Your task to perform on an android device: Open wifi settings Image 0: 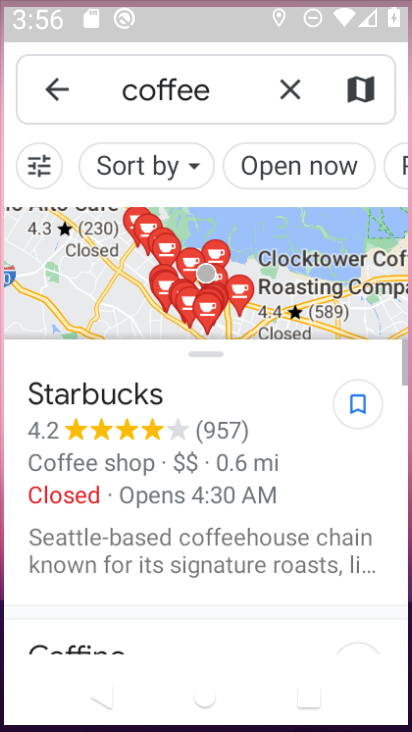
Step 0: drag from (205, 521) to (242, 4)
Your task to perform on an android device: Open wifi settings Image 1: 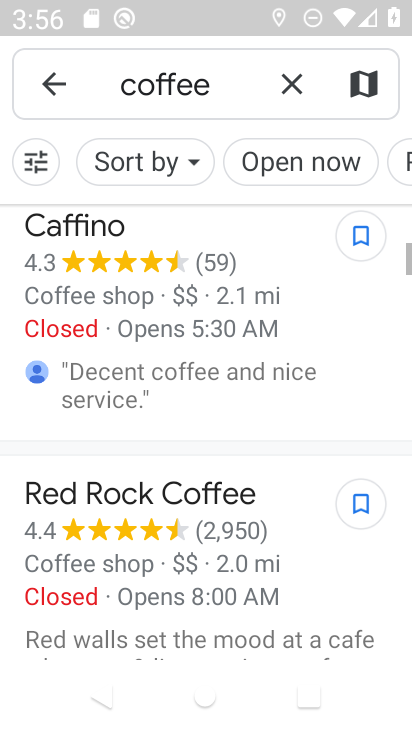
Step 1: press back button
Your task to perform on an android device: Open wifi settings Image 2: 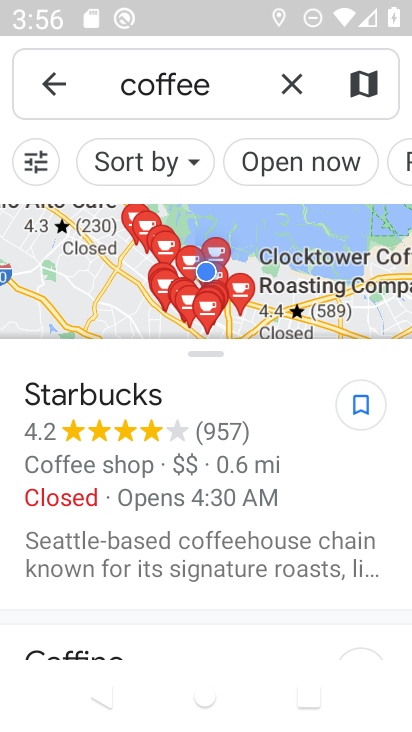
Step 2: press back button
Your task to perform on an android device: Open wifi settings Image 3: 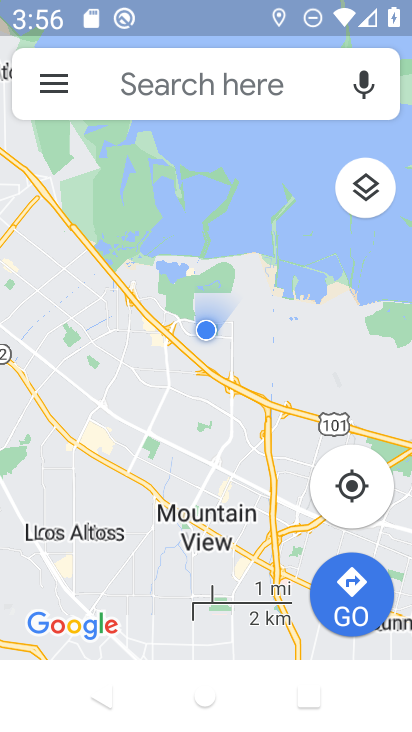
Step 3: press back button
Your task to perform on an android device: Open wifi settings Image 4: 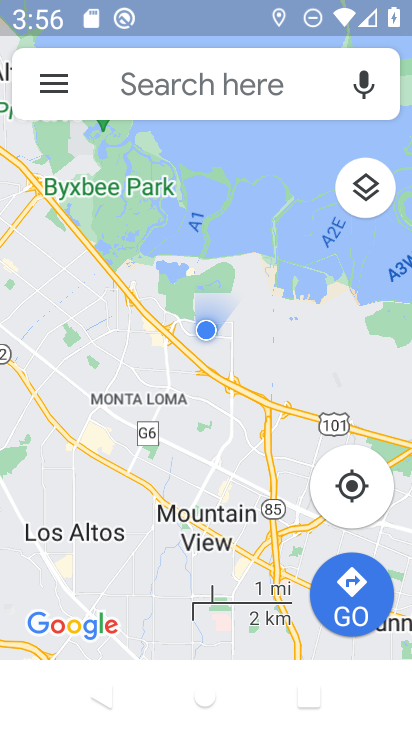
Step 4: press back button
Your task to perform on an android device: Open wifi settings Image 5: 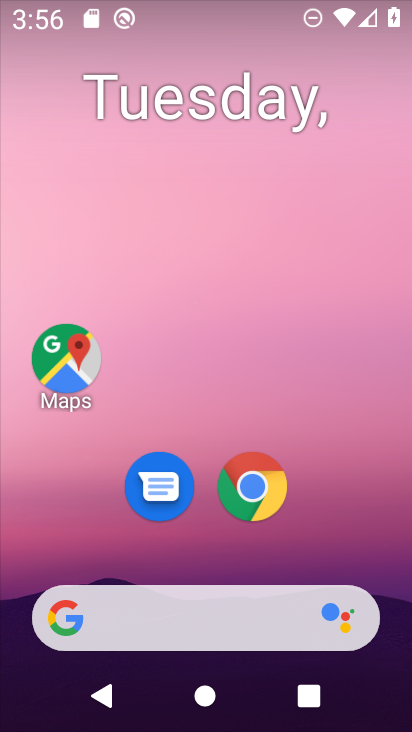
Step 5: press back button
Your task to perform on an android device: Open wifi settings Image 6: 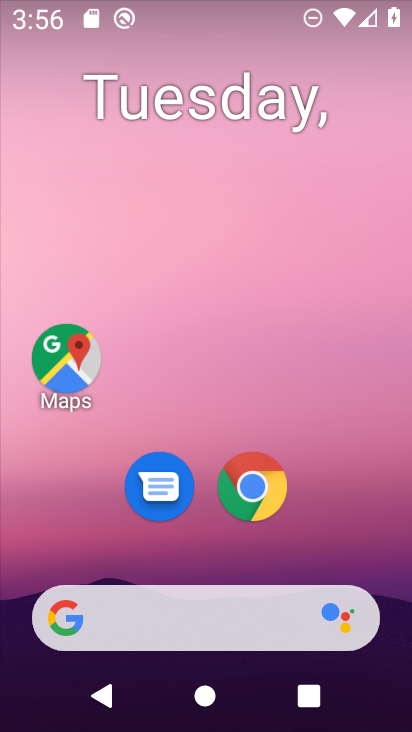
Step 6: drag from (91, 14) to (157, 582)
Your task to perform on an android device: Open wifi settings Image 7: 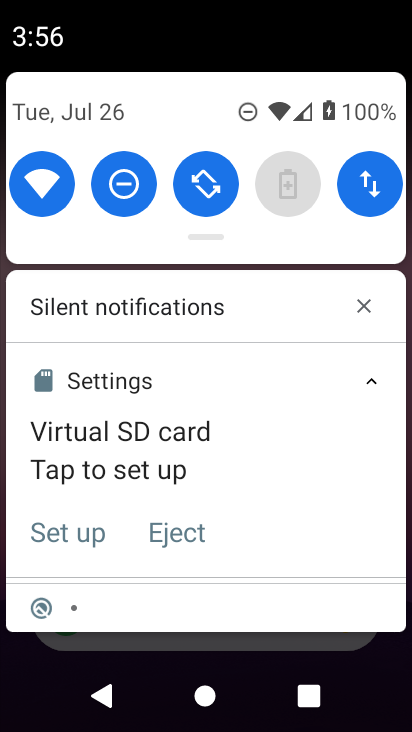
Step 7: click (41, 181)
Your task to perform on an android device: Open wifi settings Image 8: 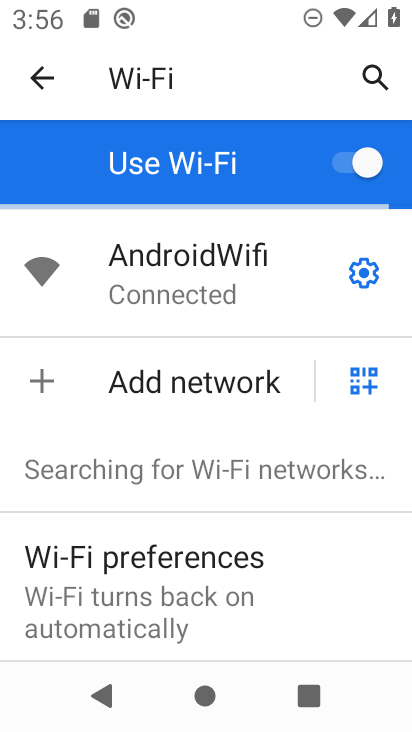
Step 8: task complete